Your task to perform on an android device: open the mobile data screen to see how much data has been used Image 0: 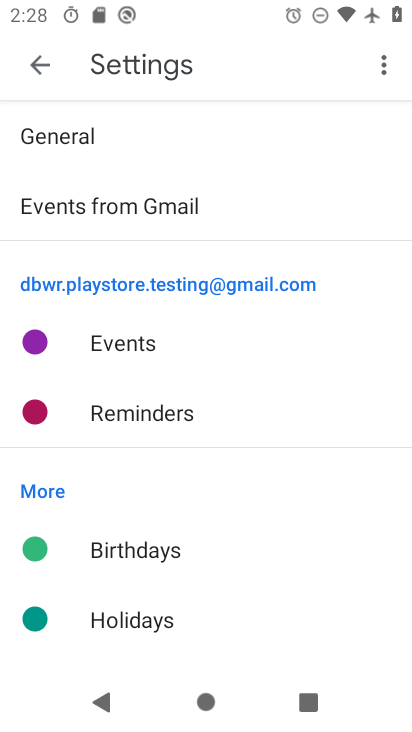
Step 0: press home button
Your task to perform on an android device: open the mobile data screen to see how much data has been used Image 1: 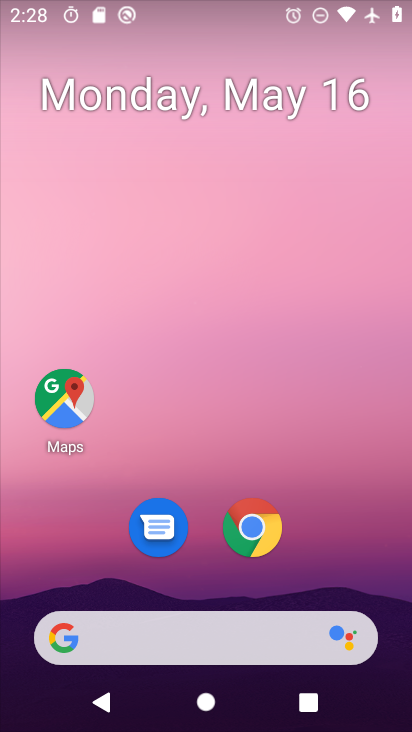
Step 1: drag from (172, 632) to (326, 268)
Your task to perform on an android device: open the mobile data screen to see how much data has been used Image 2: 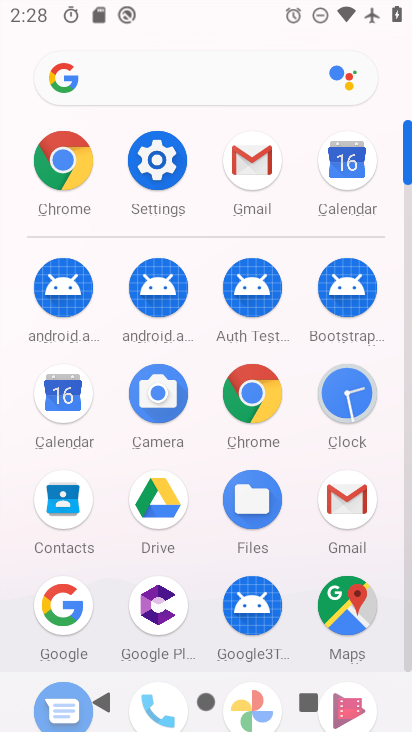
Step 2: click (157, 170)
Your task to perform on an android device: open the mobile data screen to see how much data has been used Image 3: 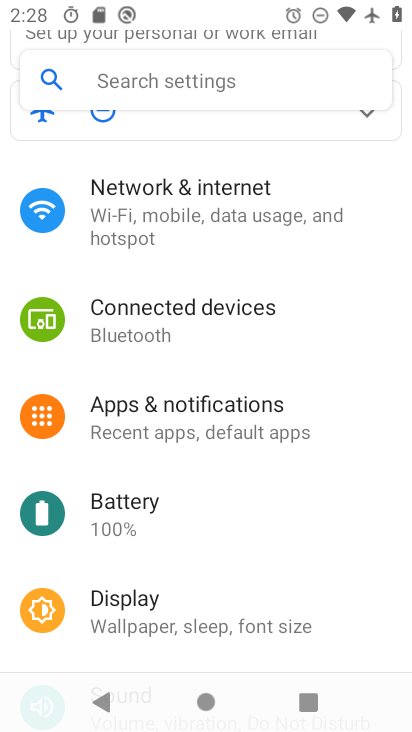
Step 3: click (229, 198)
Your task to perform on an android device: open the mobile data screen to see how much data has been used Image 4: 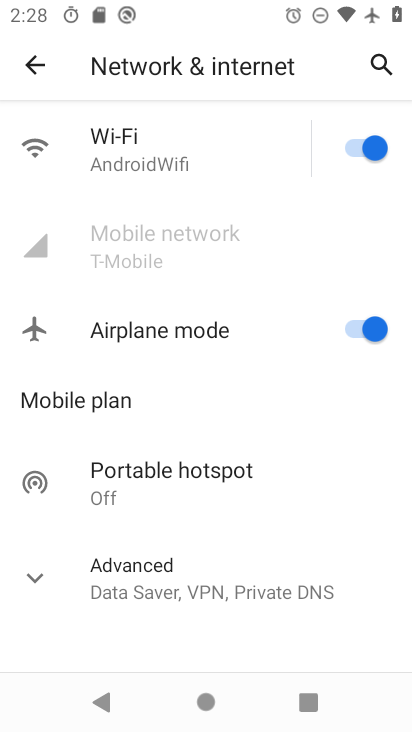
Step 4: task complete